Your task to perform on an android device: Go to wifi settings Image 0: 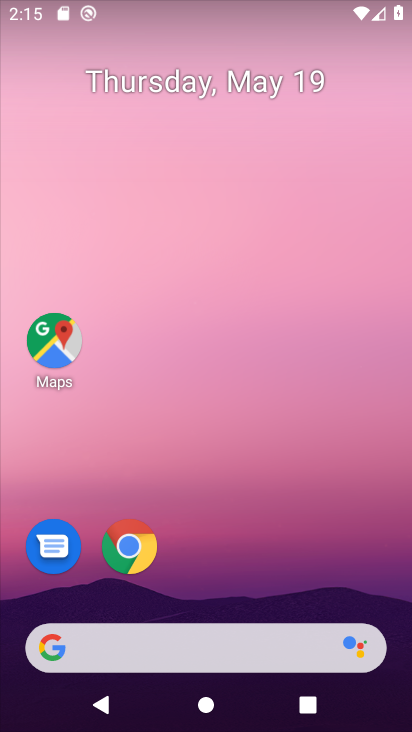
Step 0: press home button
Your task to perform on an android device: Go to wifi settings Image 1: 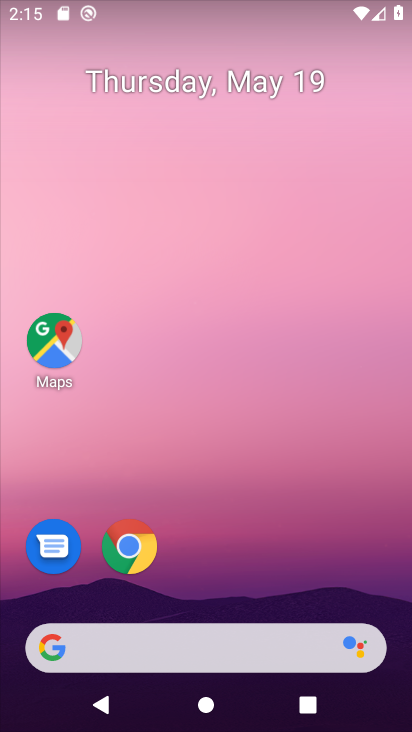
Step 1: drag from (216, 597) to (217, 248)
Your task to perform on an android device: Go to wifi settings Image 2: 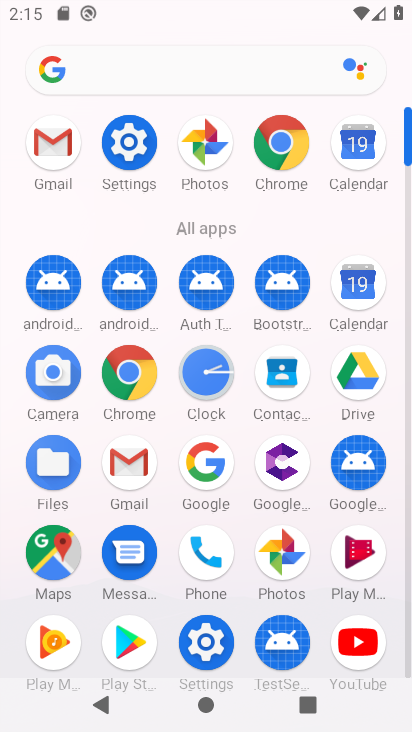
Step 2: click (129, 130)
Your task to perform on an android device: Go to wifi settings Image 3: 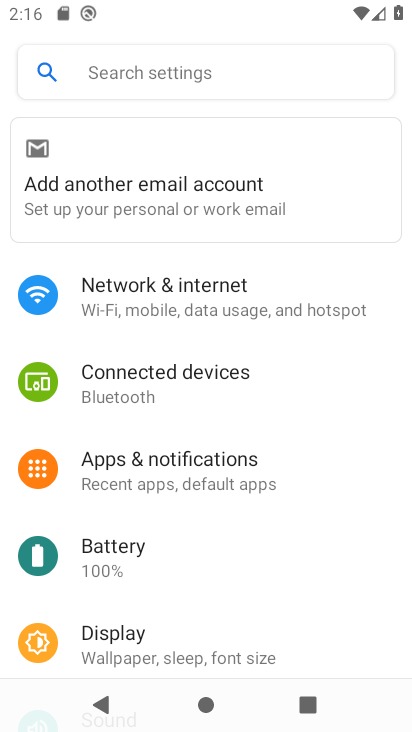
Step 3: click (226, 301)
Your task to perform on an android device: Go to wifi settings Image 4: 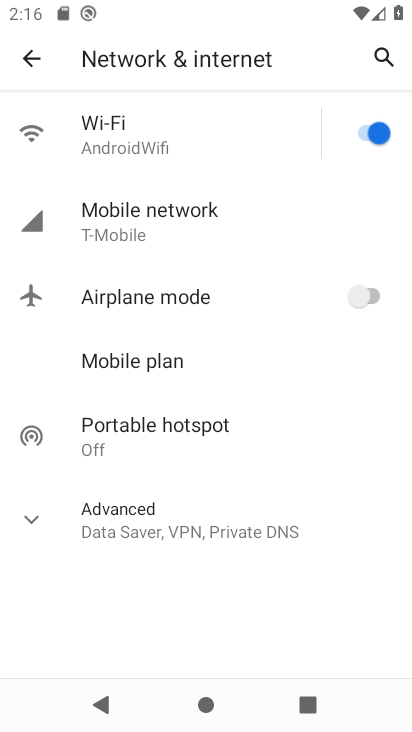
Step 4: click (213, 134)
Your task to perform on an android device: Go to wifi settings Image 5: 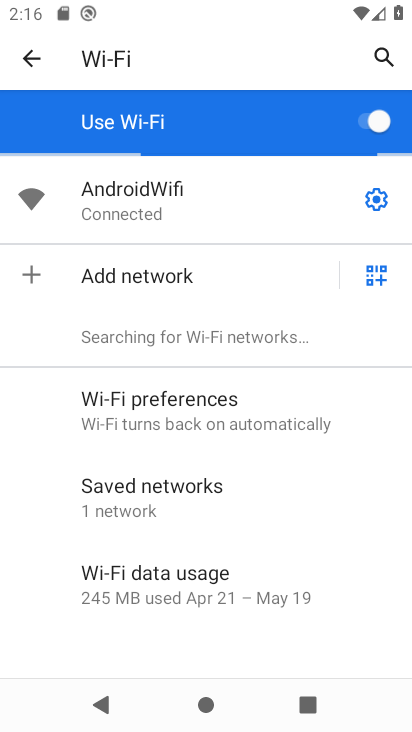
Step 5: task complete